Your task to perform on an android device: remove spam from my inbox in the gmail app Image 0: 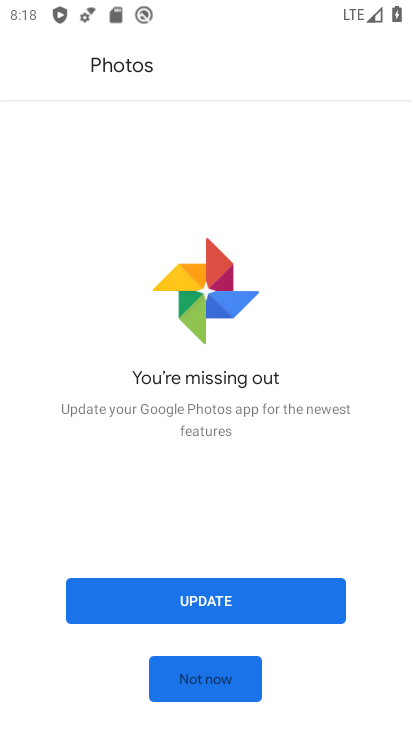
Step 0: press home button
Your task to perform on an android device: remove spam from my inbox in the gmail app Image 1: 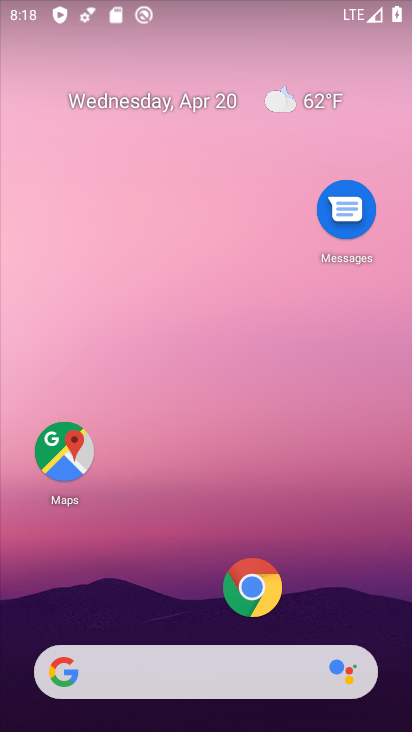
Step 1: drag from (169, 598) to (242, 246)
Your task to perform on an android device: remove spam from my inbox in the gmail app Image 2: 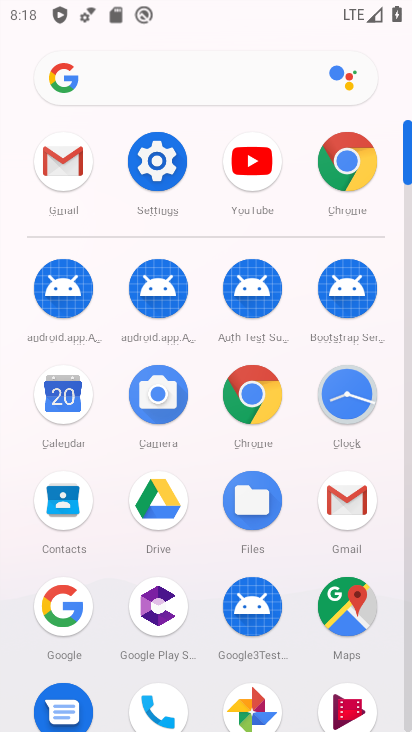
Step 2: click (63, 171)
Your task to perform on an android device: remove spam from my inbox in the gmail app Image 3: 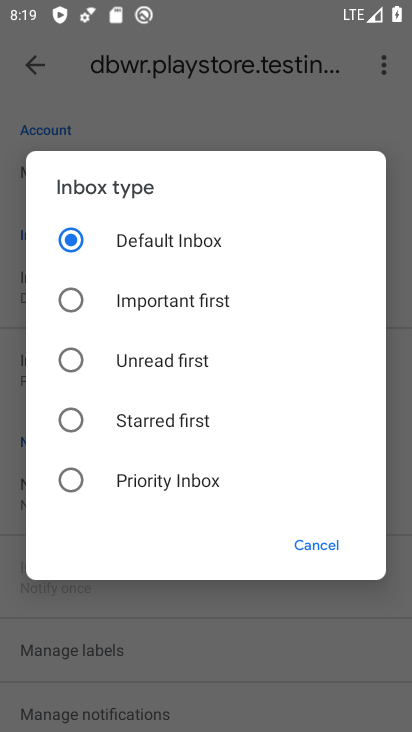
Step 3: click (330, 553)
Your task to perform on an android device: remove spam from my inbox in the gmail app Image 4: 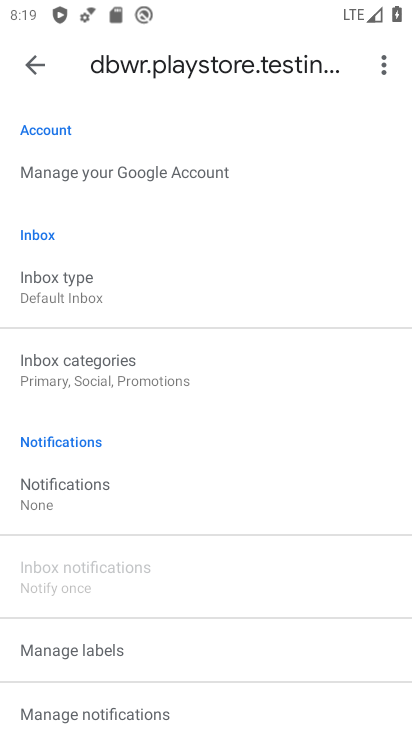
Step 4: click (35, 60)
Your task to perform on an android device: remove spam from my inbox in the gmail app Image 5: 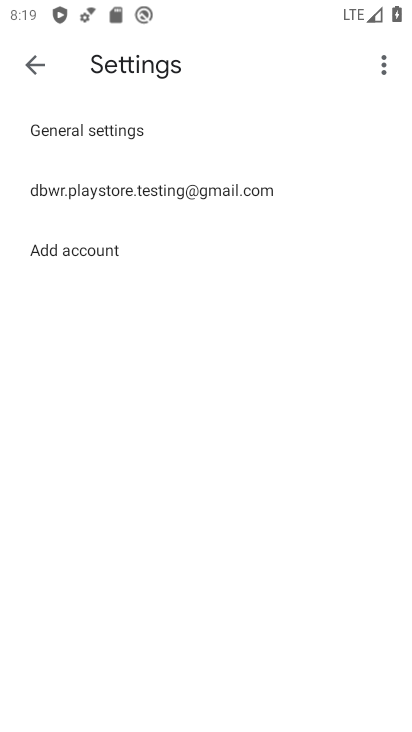
Step 5: click (35, 59)
Your task to perform on an android device: remove spam from my inbox in the gmail app Image 6: 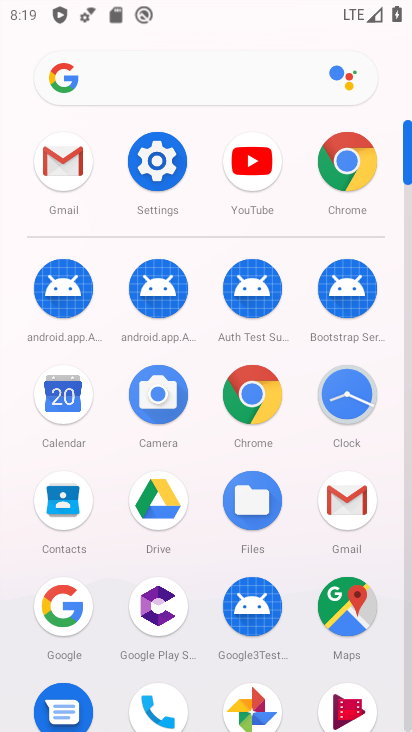
Step 6: click (70, 156)
Your task to perform on an android device: remove spam from my inbox in the gmail app Image 7: 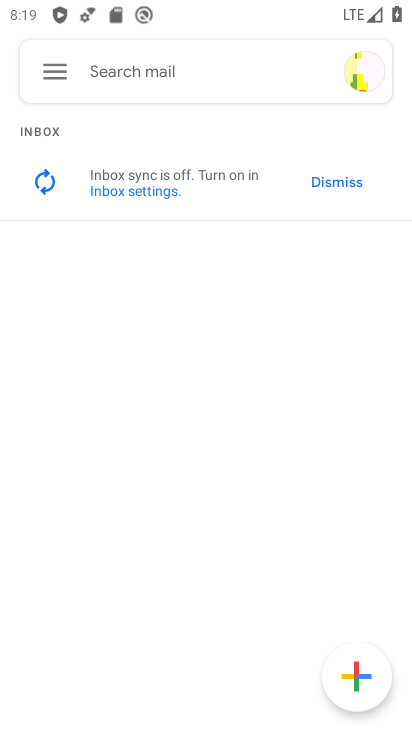
Step 7: click (51, 71)
Your task to perform on an android device: remove spam from my inbox in the gmail app Image 8: 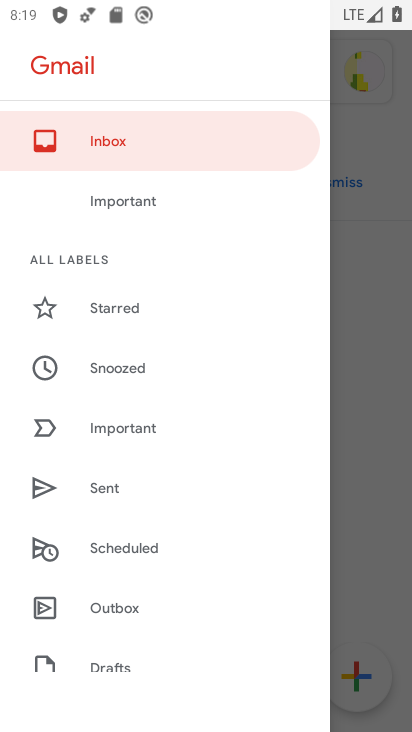
Step 8: drag from (179, 637) to (233, 320)
Your task to perform on an android device: remove spam from my inbox in the gmail app Image 9: 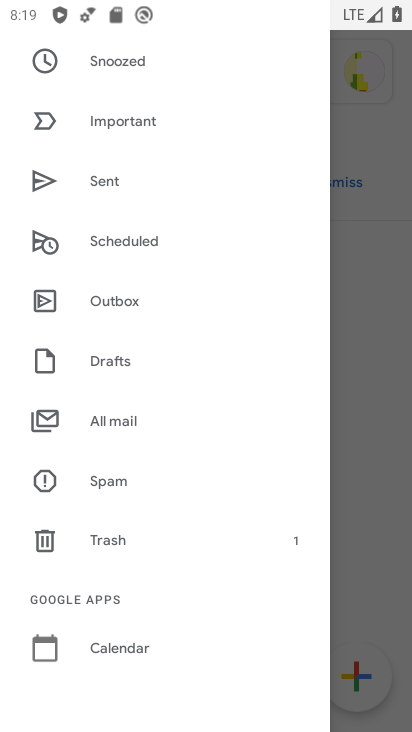
Step 9: click (120, 481)
Your task to perform on an android device: remove spam from my inbox in the gmail app Image 10: 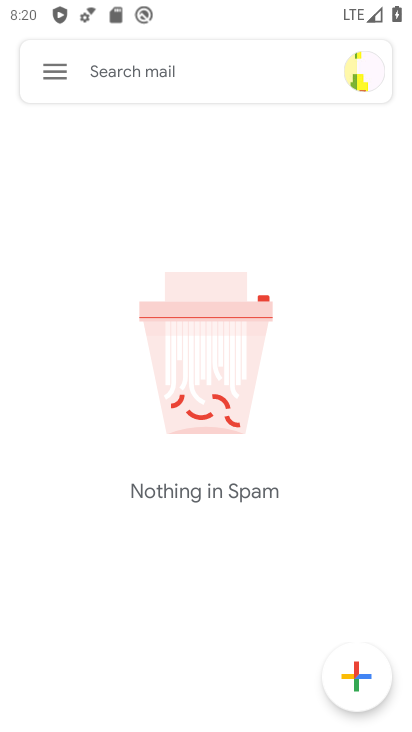
Step 10: task complete